Your task to perform on an android device: Is it going to rain this weekend? Image 0: 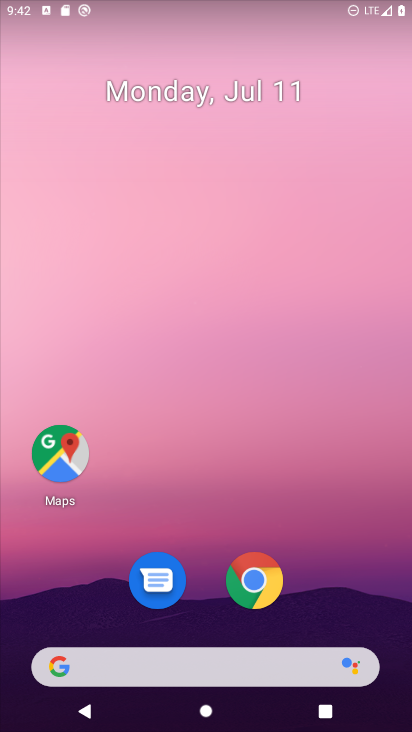
Step 0: drag from (316, 508) to (265, 31)
Your task to perform on an android device: Is it going to rain this weekend? Image 1: 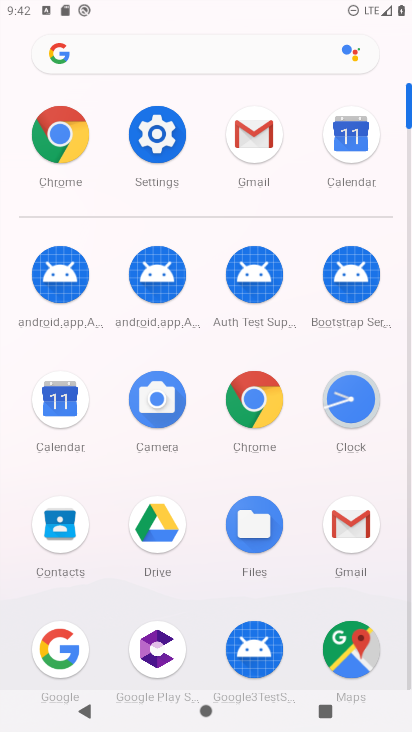
Step 1: click (73, 651)
Your task to perform on an android device: Is it going to rain this weekend? Image 2: 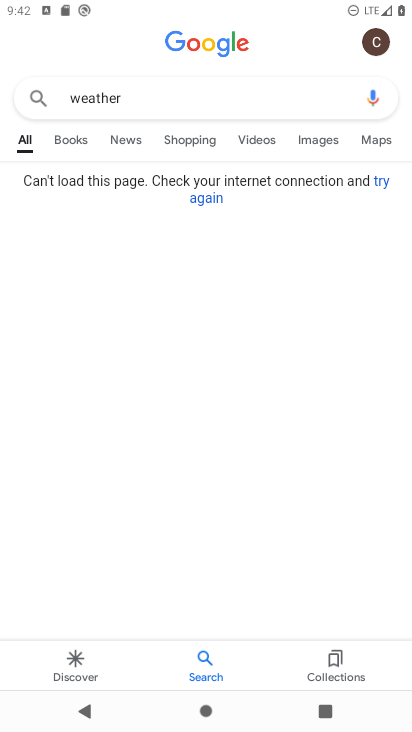
Step 2: click (161, 92)
Your task to perform on an android device: Is it going to rain this weekend? Image 3: 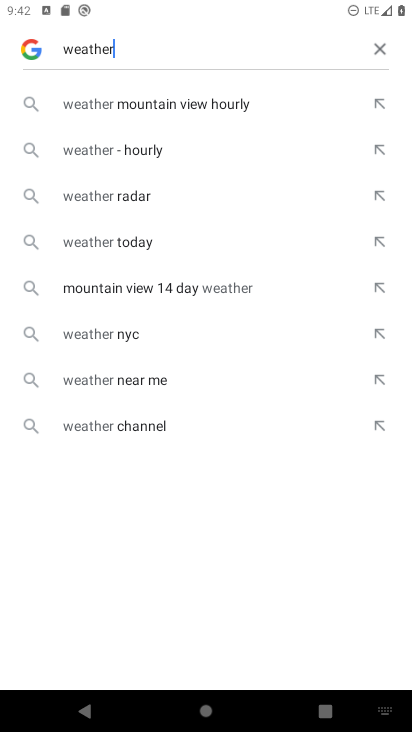
Step 3: click (114, 240)
Your task to perform on an android device: Is it going to rain this weekend? Image 4: 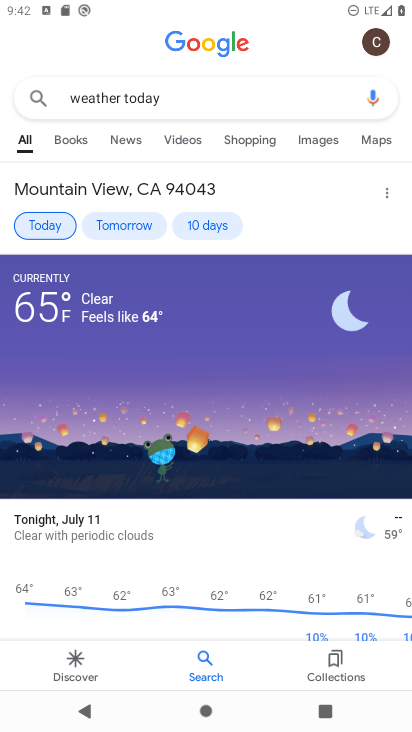
Step 4: click (58, 212)
Your task to perform on an android device: Is it going to rain this weekend? Image 5: 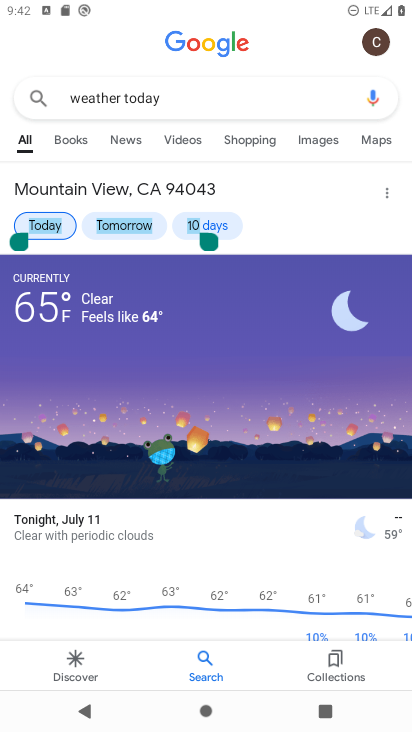
Step 5: click (58, 223)
Your task to perform on an android device: Is it going to rain this weekend? Image 6: 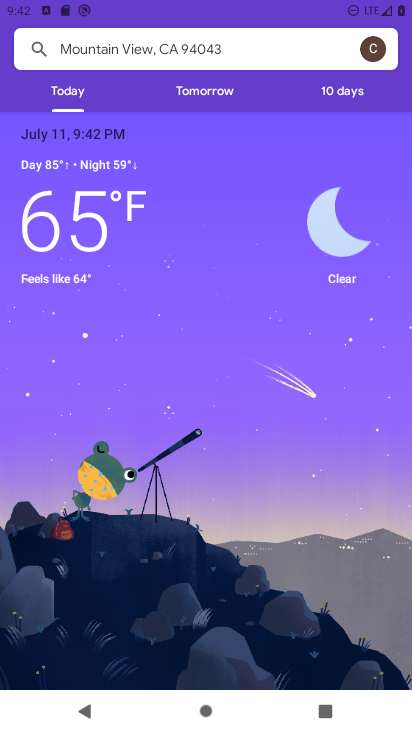
Step 6: click (355, 96)
Your task to perform on an android device: Is it going to rain this weekend? Image 7: 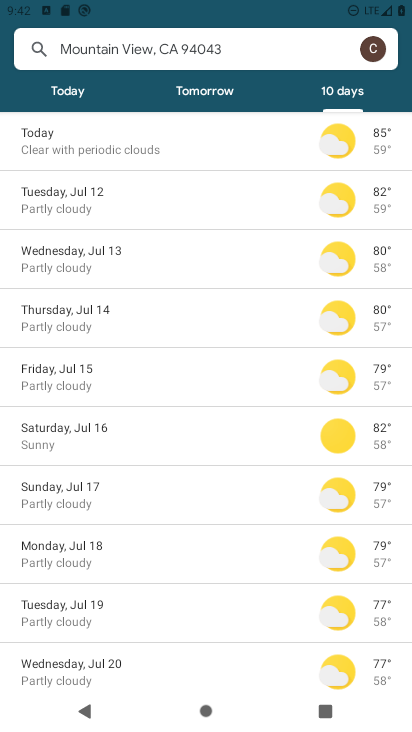
Step 7: click (83, 426)
Your task to perform on an android device: Is it going to rain this weekend? Image 8: 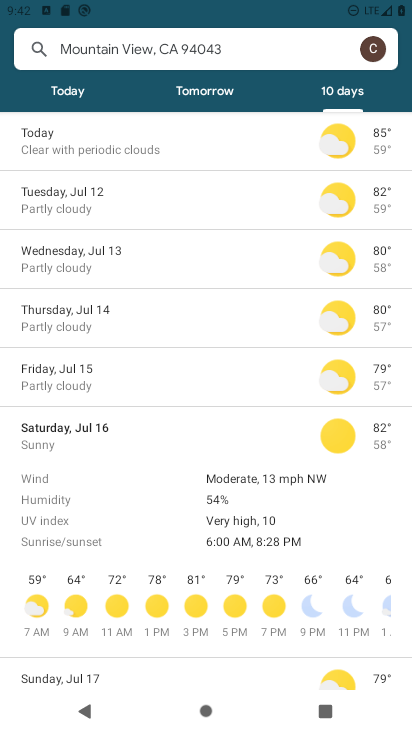
Step 8: task complete